Your task to perform on an android device: Add "macbook pro 13 inch" to the cart on walmart Image 0: 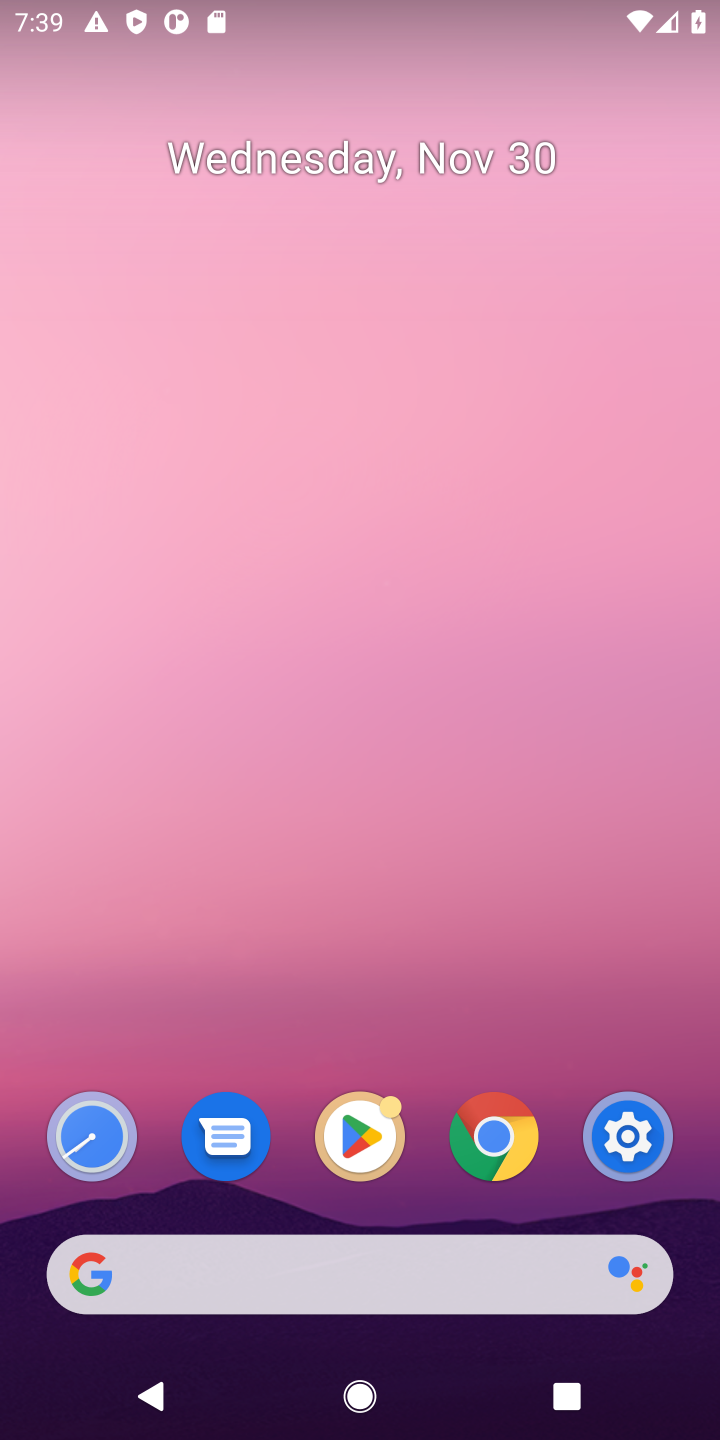
Step 0: click (495, 1150)
Your task to perform on an android device: Add "macbook pro 13 inch" to the cart on walmart Image 1: 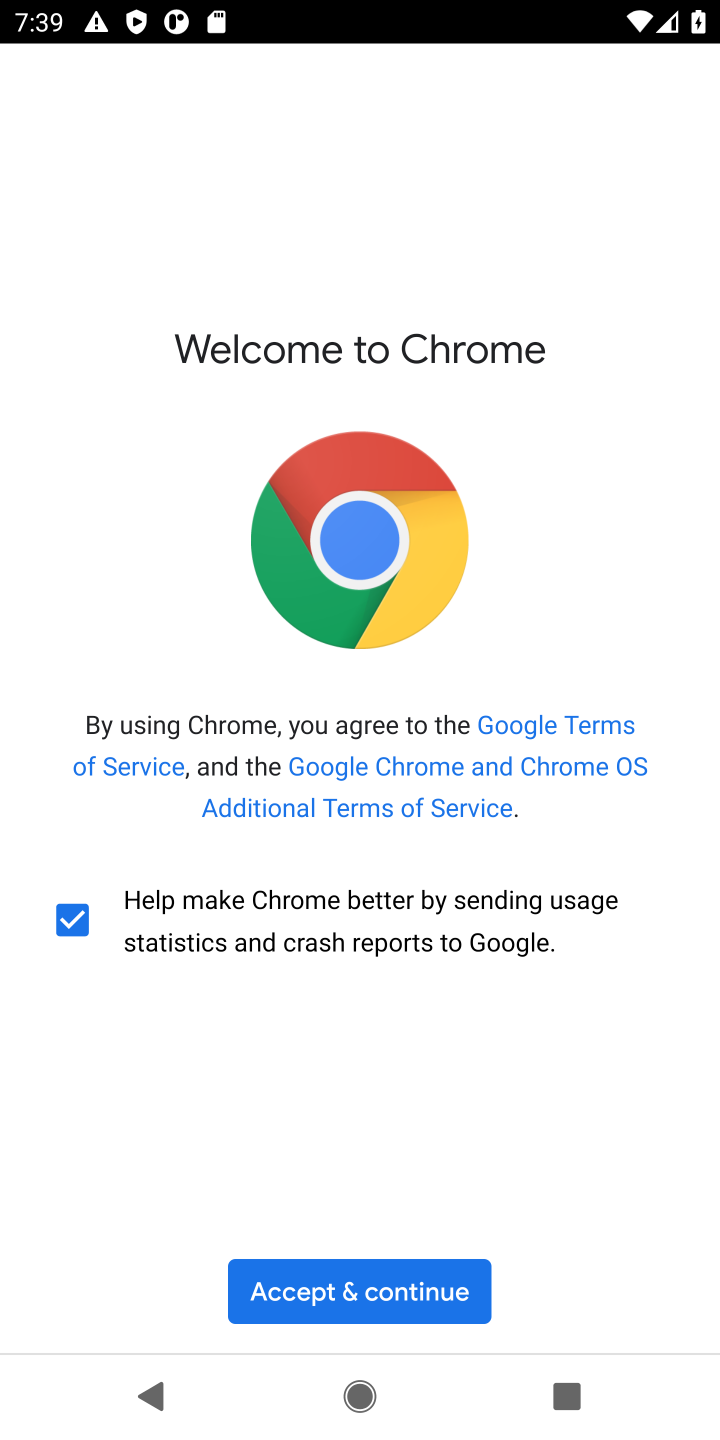
Step 1: click (425, 1279)
Your task to perform on an android device: Add "macbook pro 13 inch" to the cart on walmart Image 2: 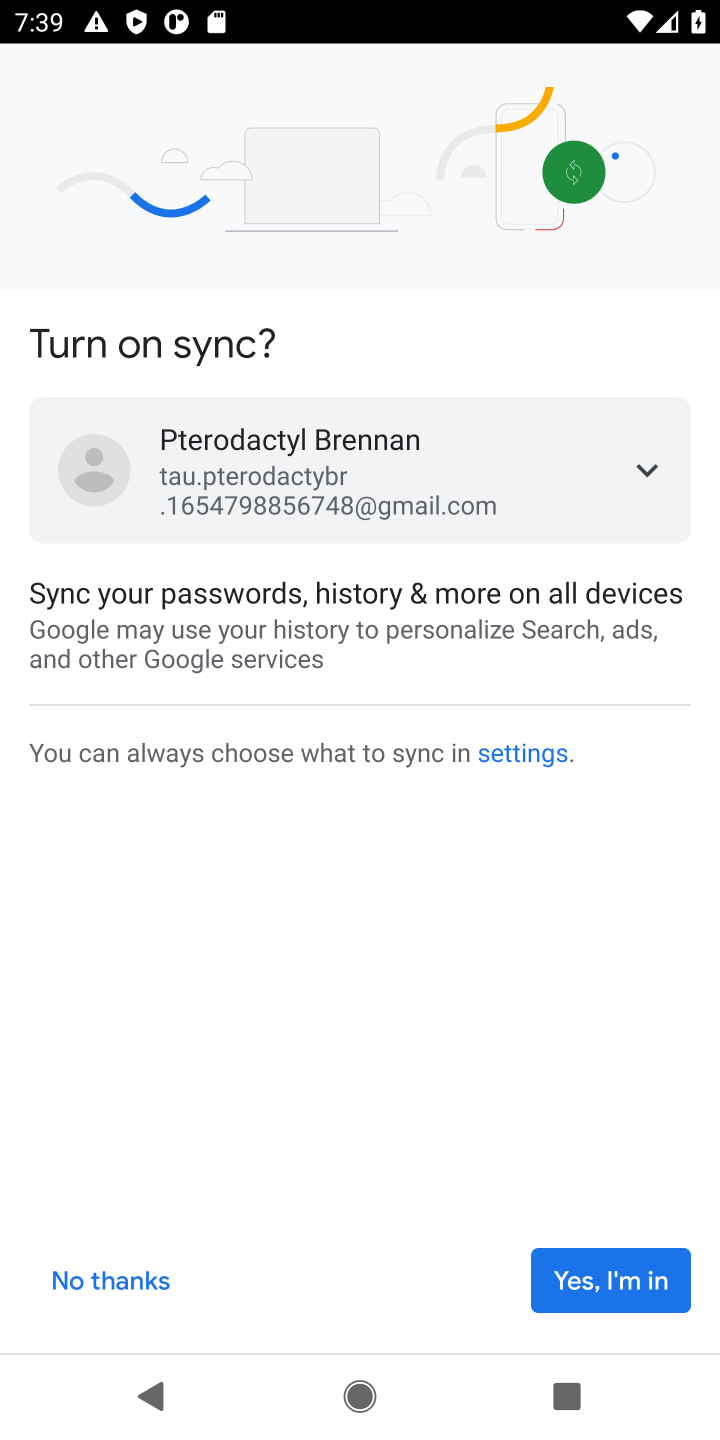
Step 2: click (121, 1283)
Your task to perform on an android device: Add "macbook pro 13 inch" to the cart on walmart Image 3: 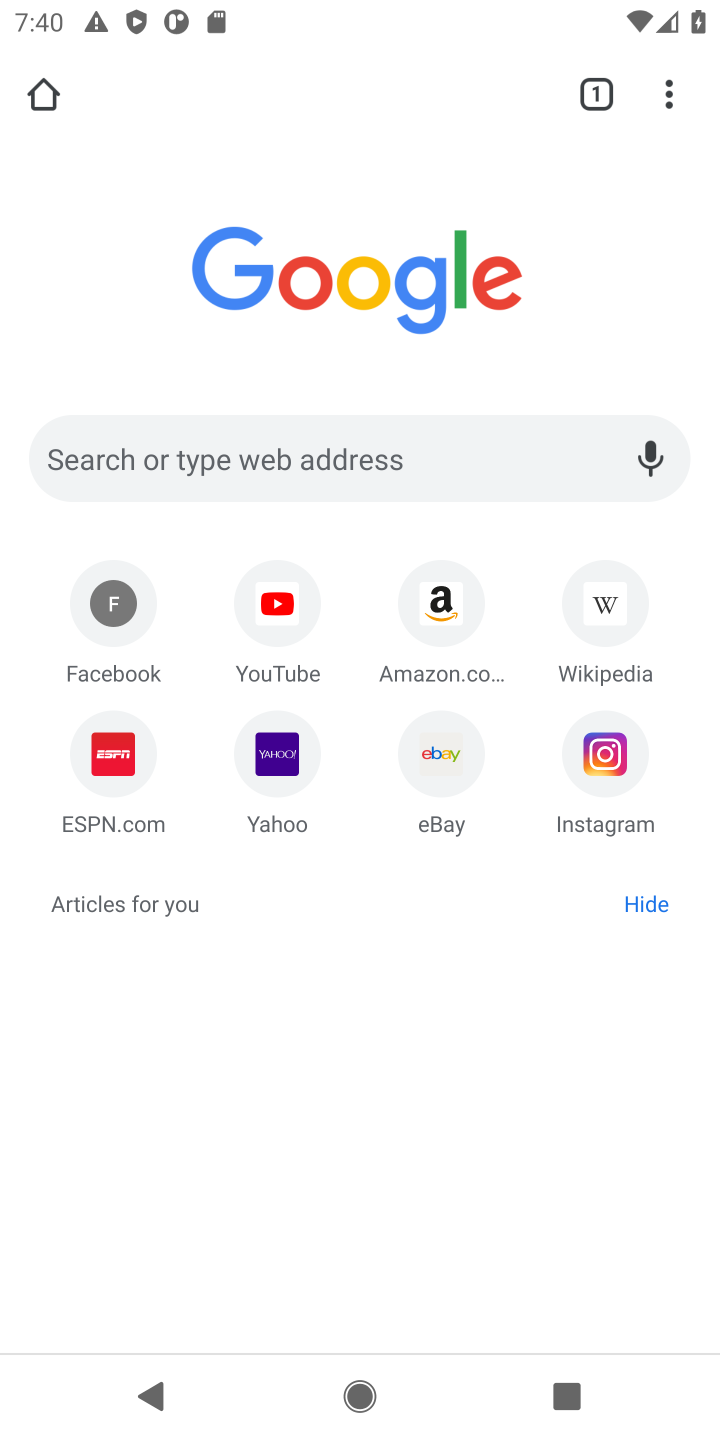
Step 3: click (145, 443)
Your task to perform on an android device: Add "macbook pro 13 inch" to the cart on walmart Image 4: 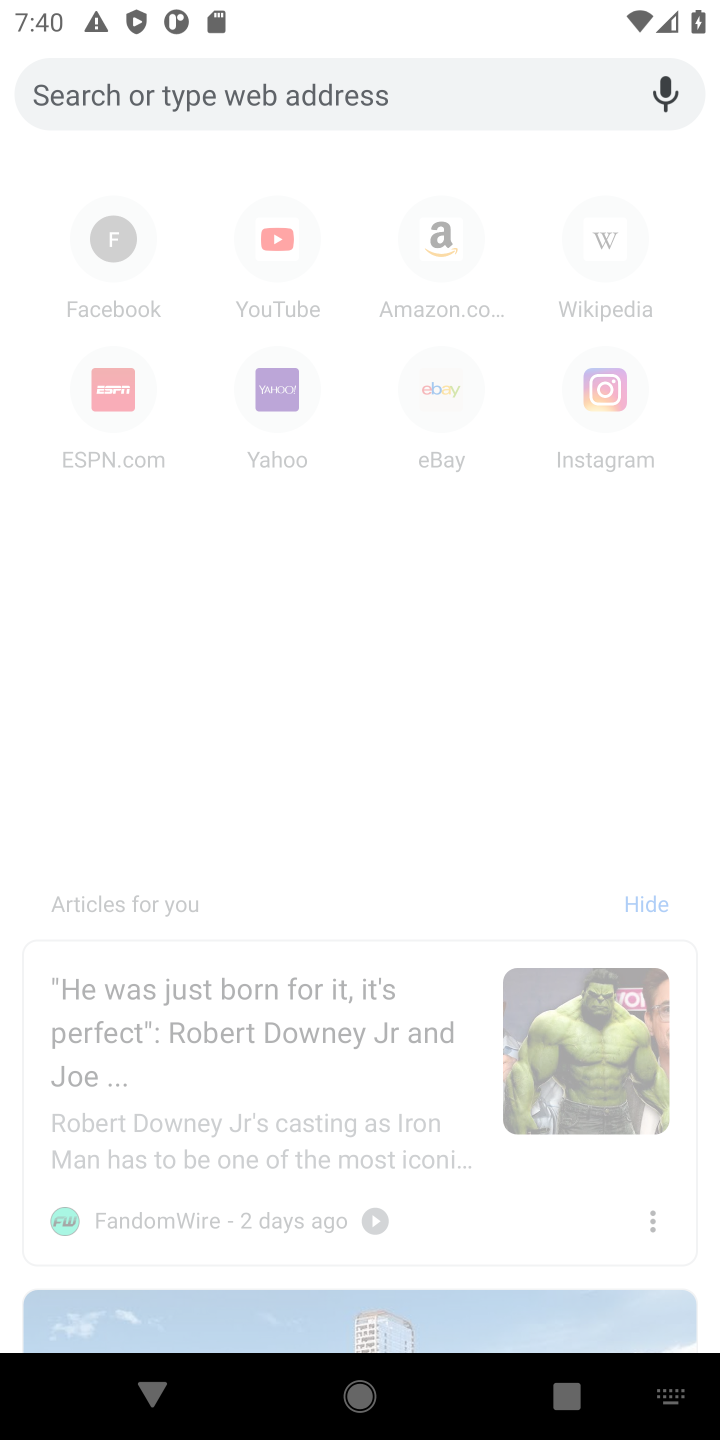
Step 4: type "walmart.com"
Your task to perform on an android device: Add "macbook pro 13 inch" to the cart on walmart Image 5: 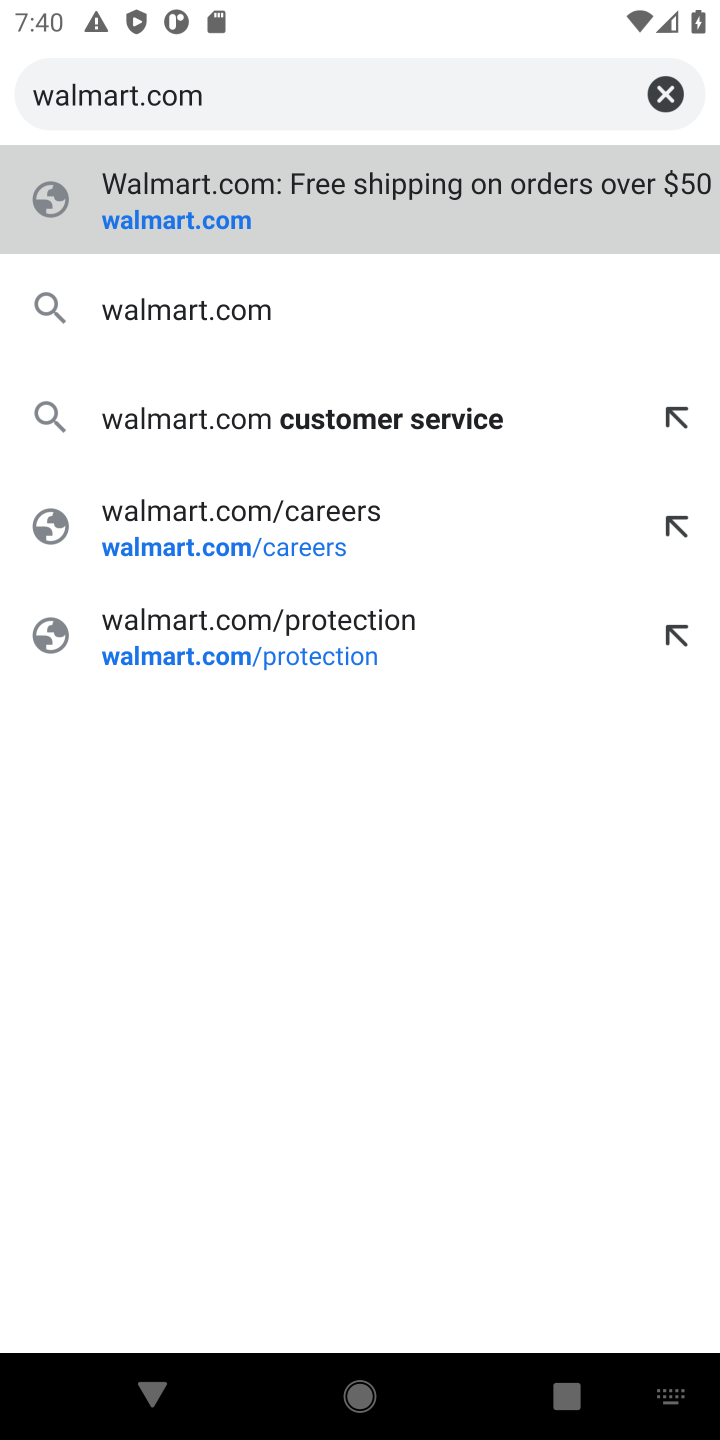
Step 5: click (184, 228)
Your task to perform on an android device: Add "macbook pro 13 inch" to the cart on walmart Image 6: 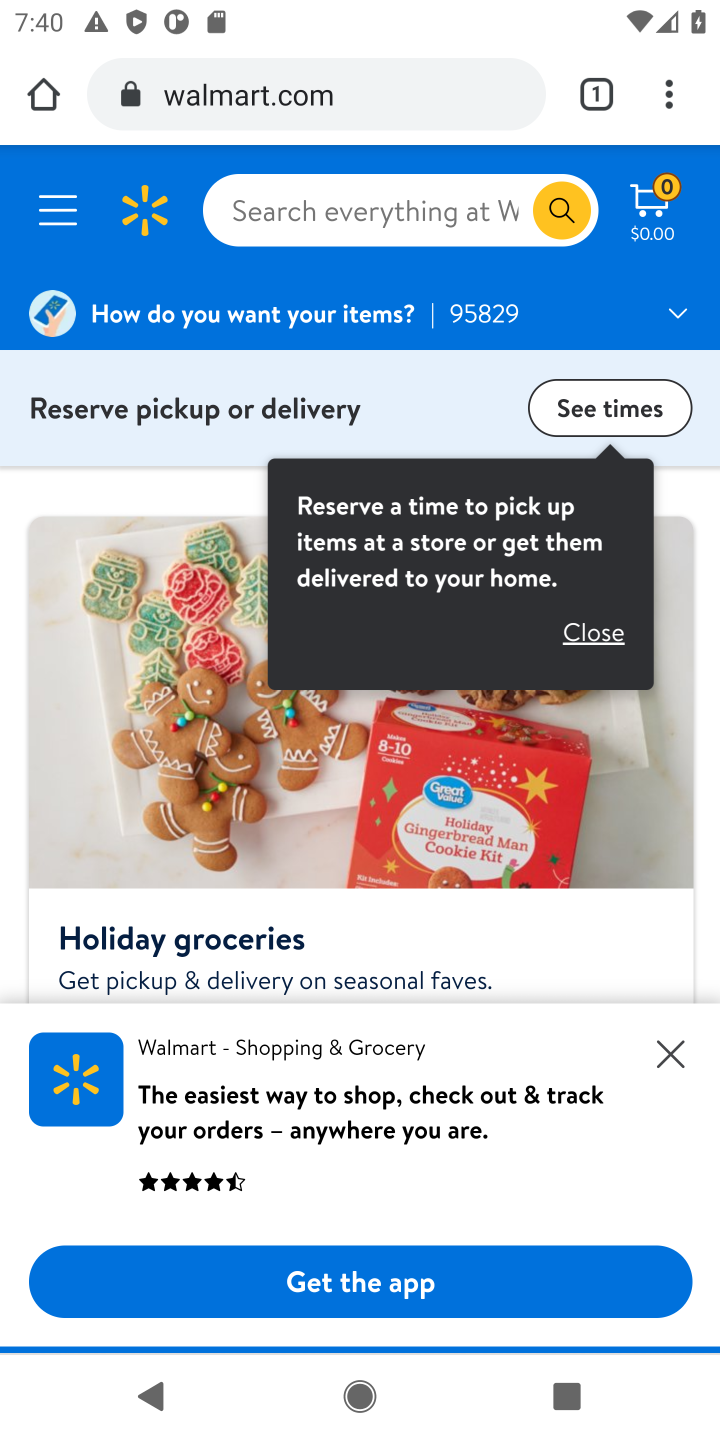
Step 6: click (336, 222)
Your task to perform on an android device: Add "macbook pro 13 inch" to the cart on walmart Image 7: 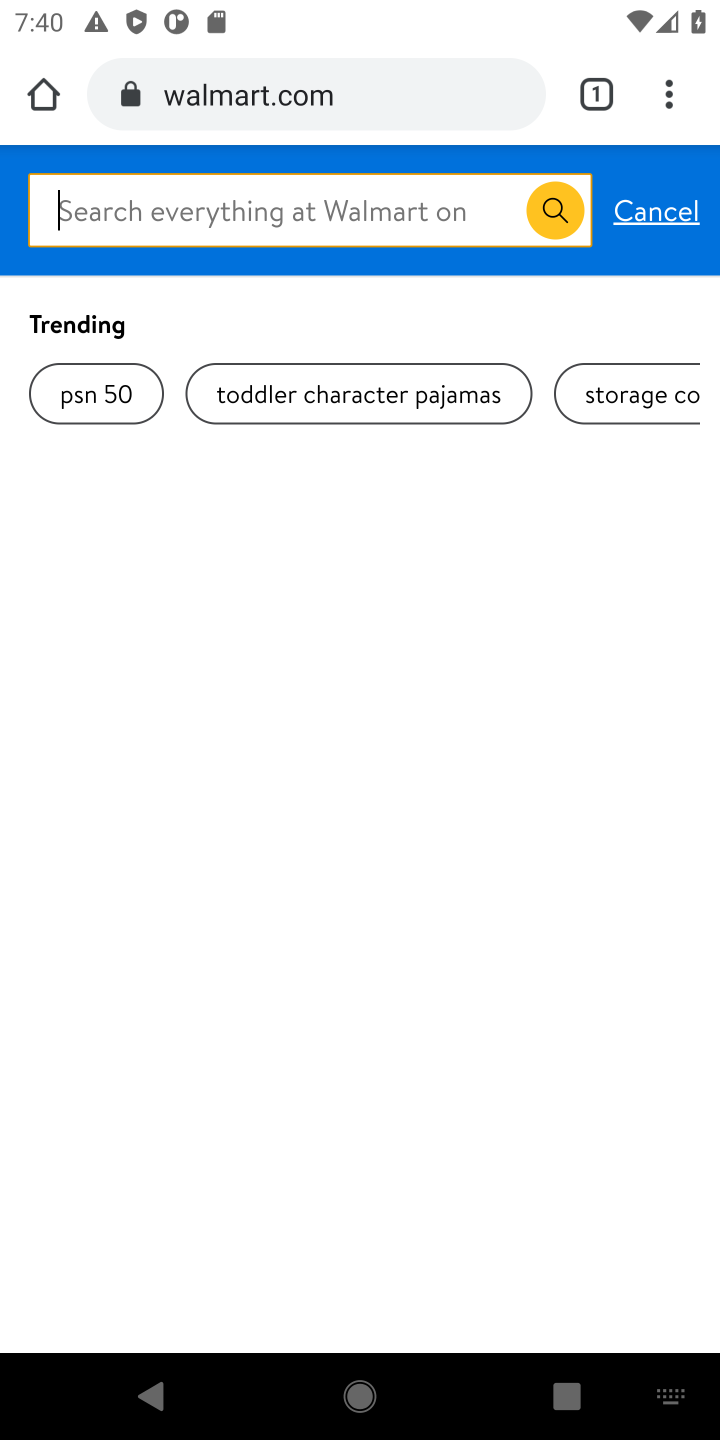
Step 7: type "macbook pro 13 inch"
Your task to perform on an android device: Add "macbook pro 13 inch" to the cart on walmart Image 8: 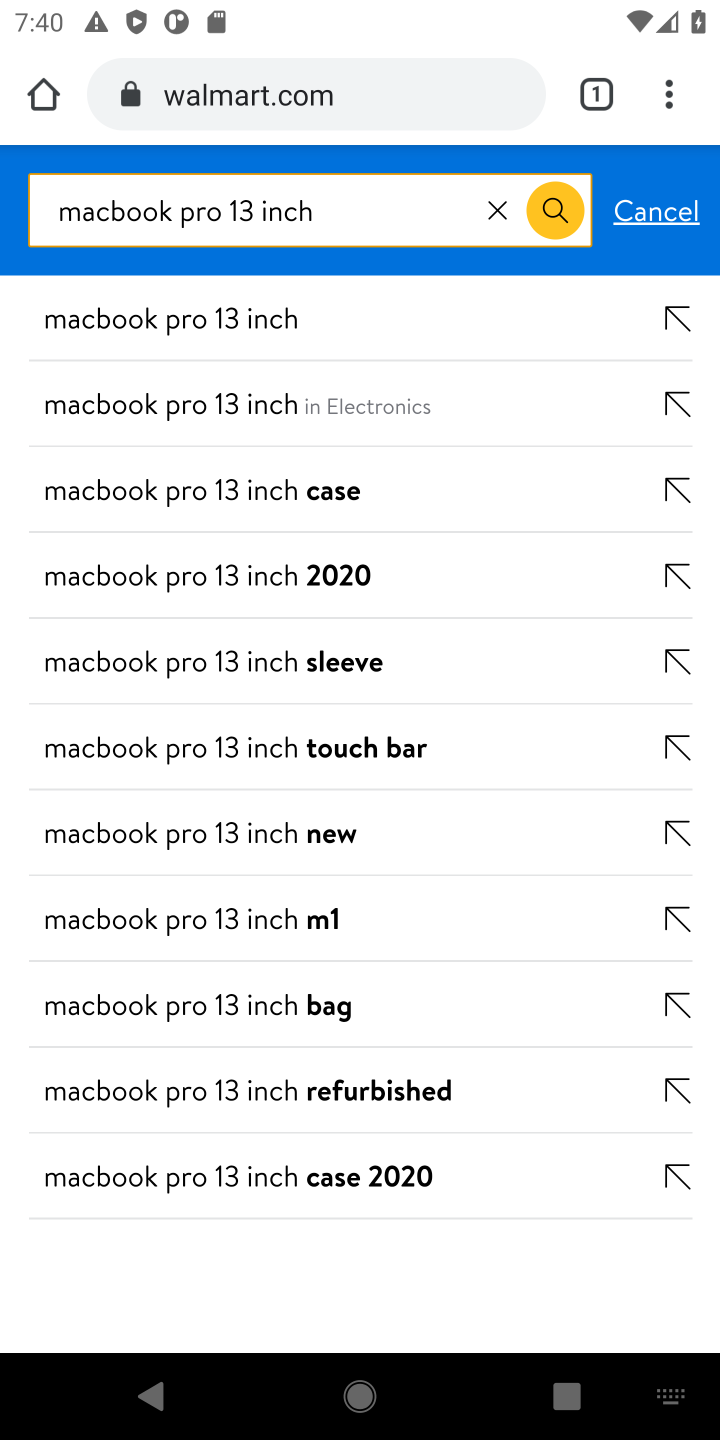
Step 8: click (168, 327)
Your task to perform on an android device: Add "macbook pro 13 inch" to the cart on walmart Image 9: 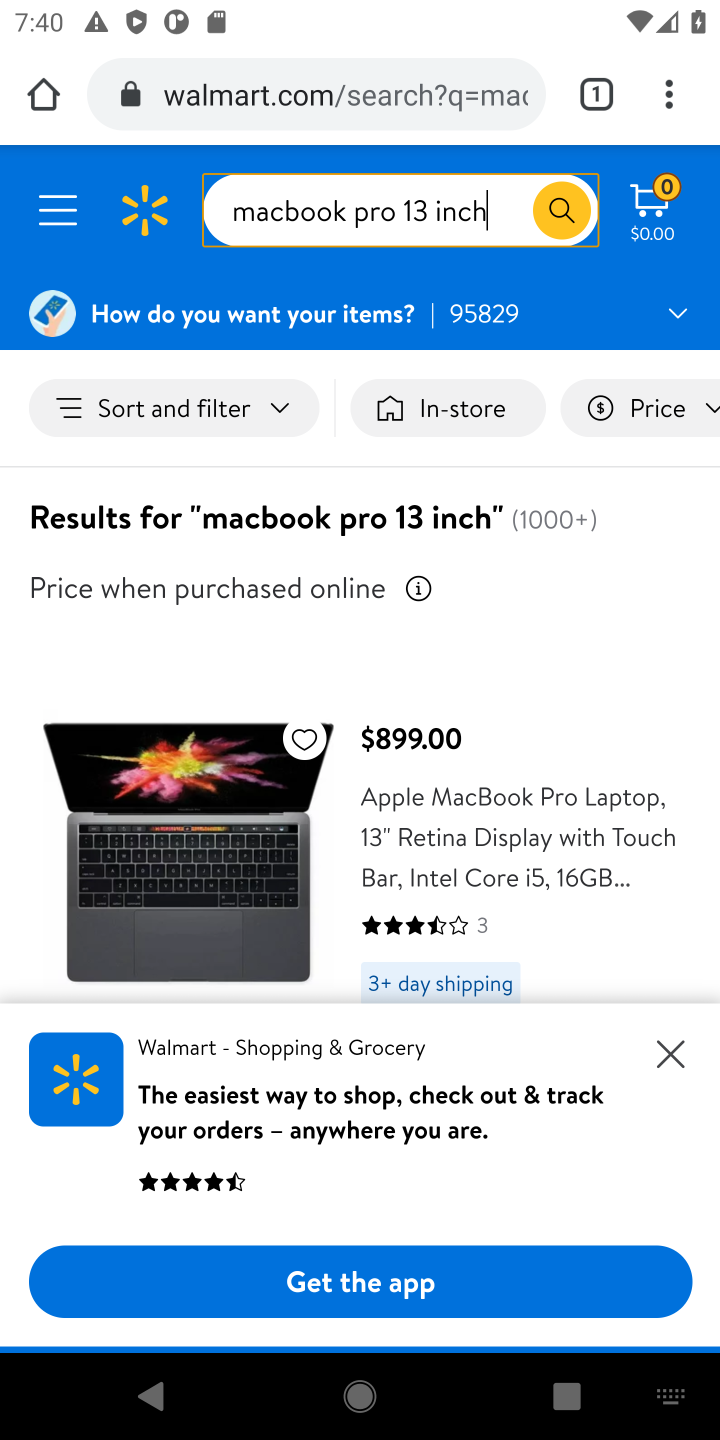
Step 9: drag from (373, 803) to (377, 590)
Your task to perform on an android device: Add "macbook pro 13 inch" to the cart on walmart Image 10: 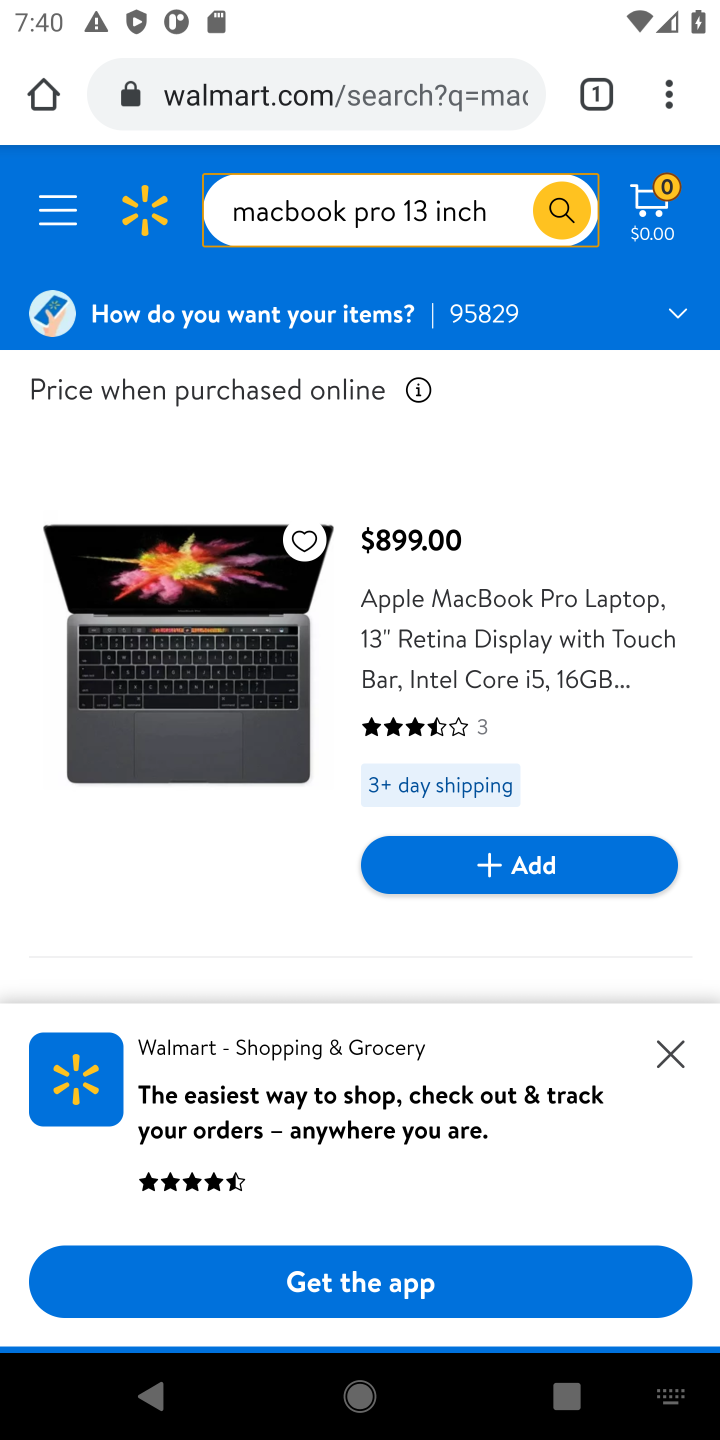
Step 10: click (513, 865)
Your task to perform on an android device: Add "macbook pro 13 inch" to the cart on walmart Image 11: 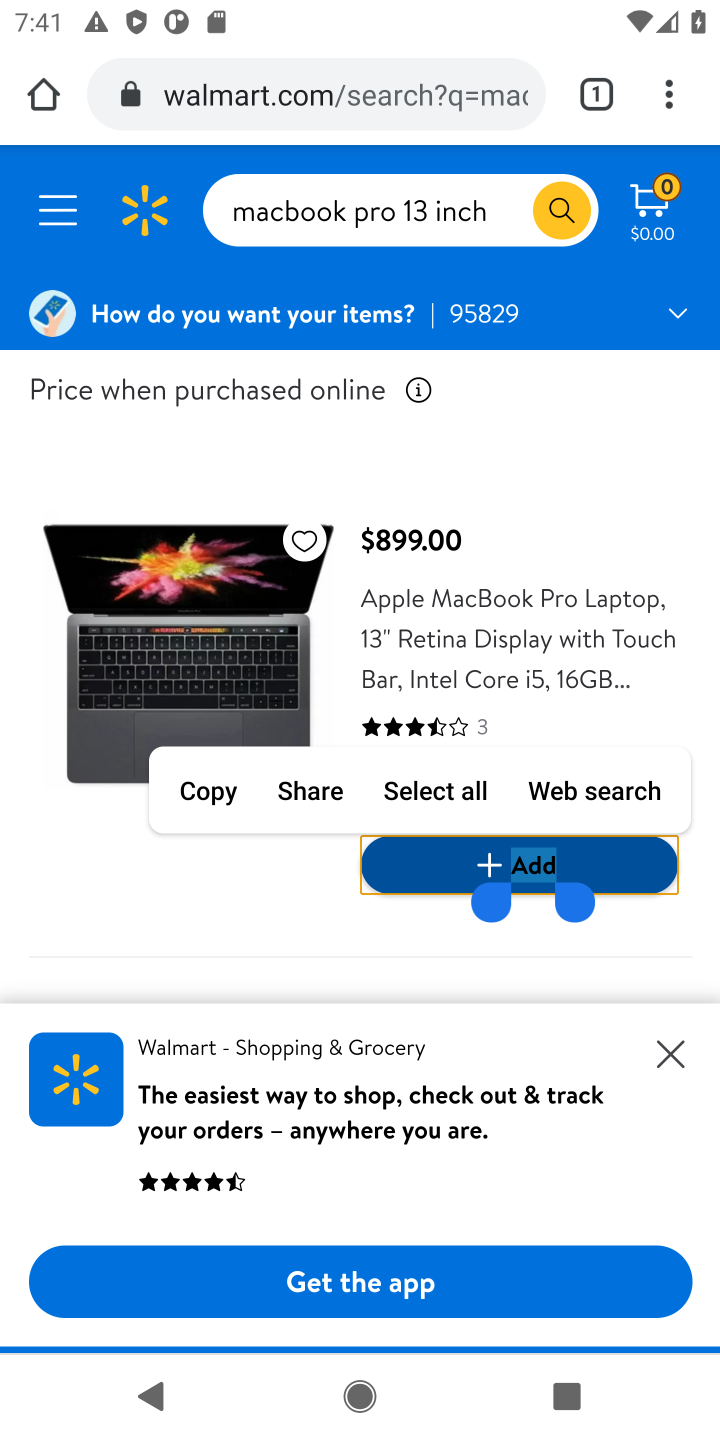
Step 11: click (543, 858)
Your task to perform on an android device: Add "macbook pro 13 inch" to the cart on walmart Image 12: 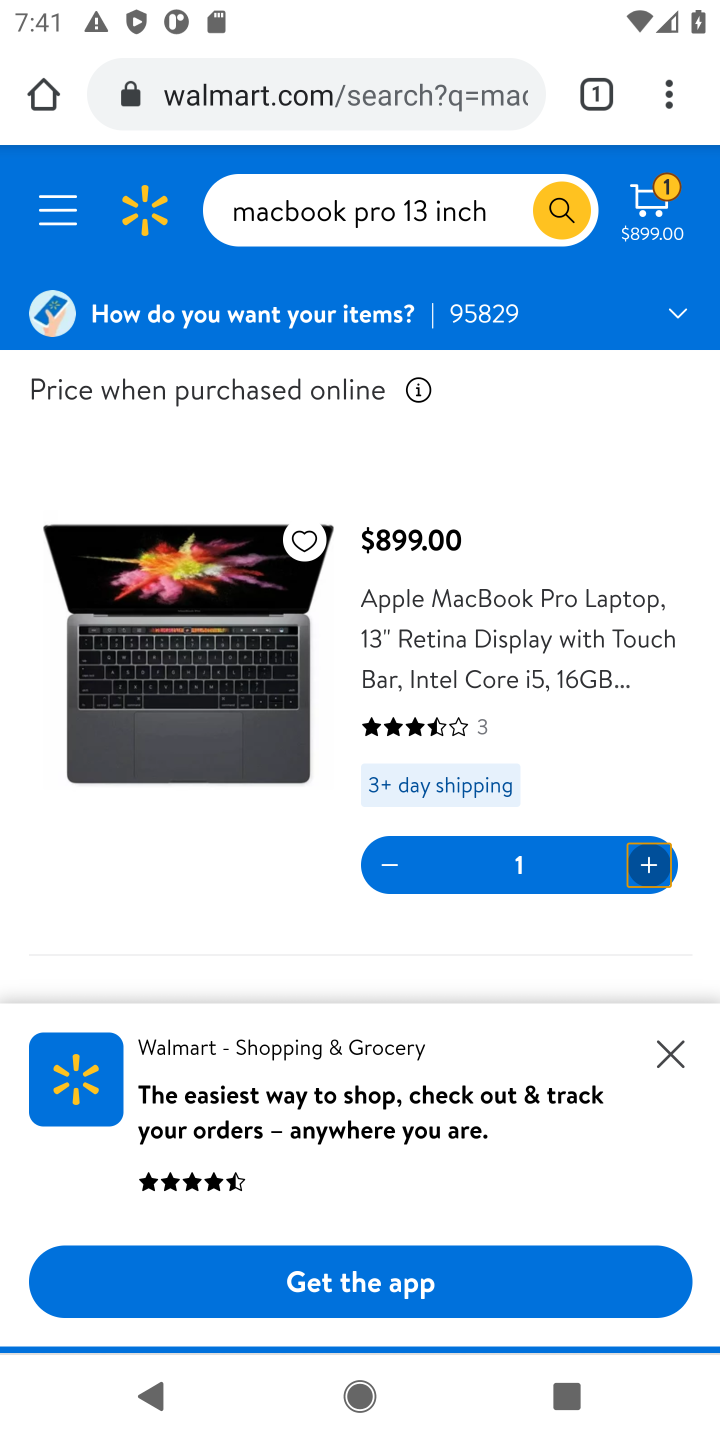
Step 12: task complete